Your task to perform on an android device: Open settings Image 0: 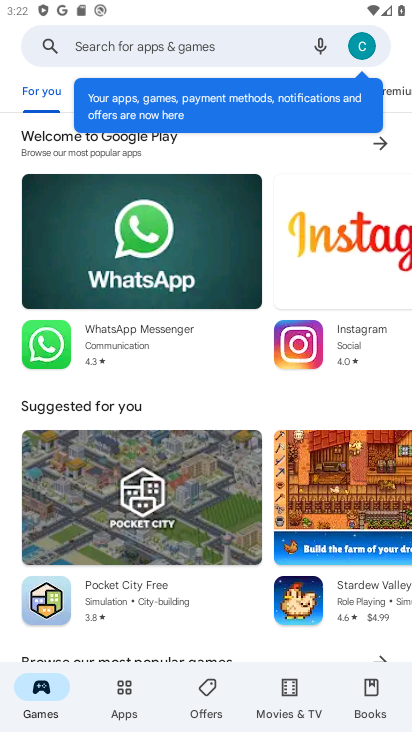
Step 0: press home button
Your task to perform on an android device: Open settings Image 1: 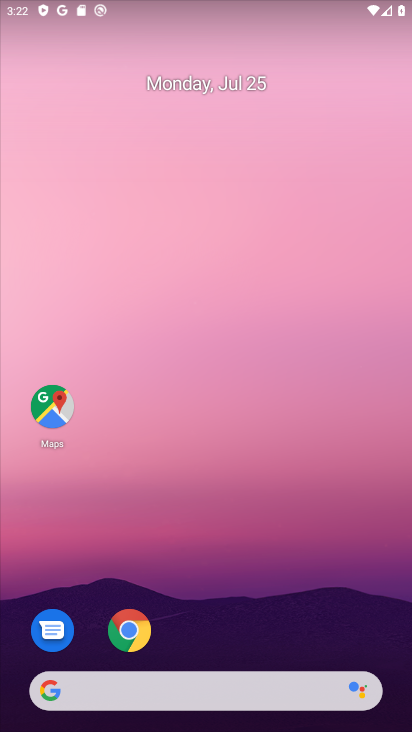
Step 1: drag from (184, 696) to (251, 191)
Your task to perform on an android device: Open settings Image 2: 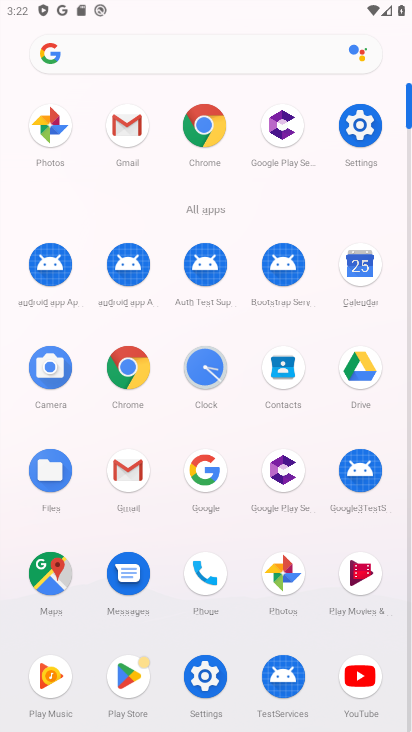
Step 2: click (360, 125)
Your task to perform on an android device: Open settings Image 3: 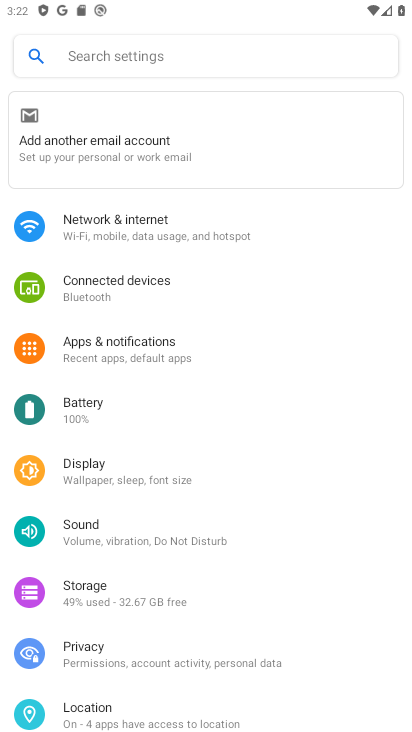
Step 3: task complete